Your task to perform on an android device: Open eBay Image 0: 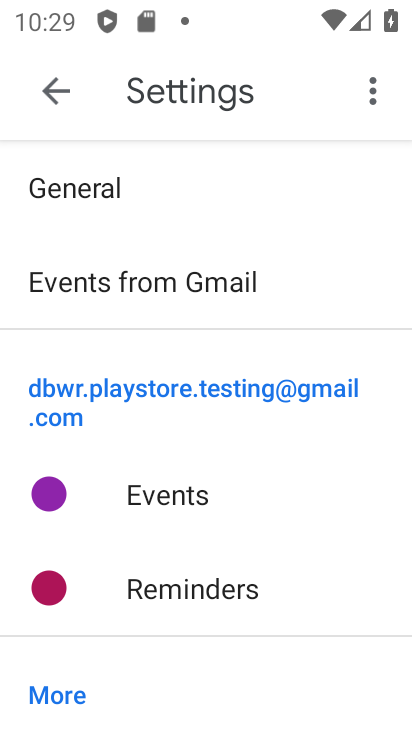
Step 0: press home button
Your task to perform on an android device: Open eBay Image 1: 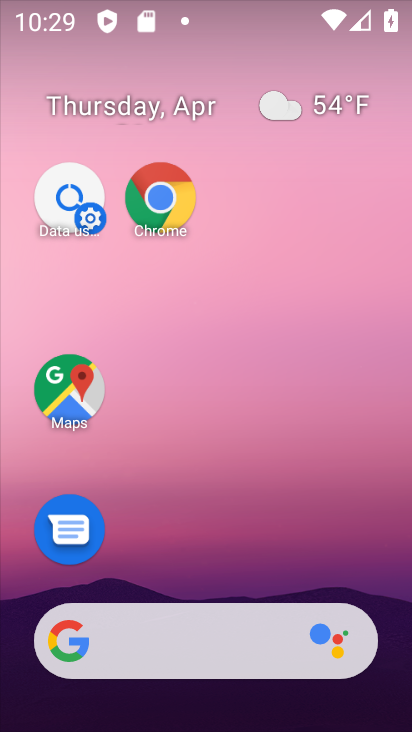
Step 1: click (168, 186)
Your task to perform on an android device: Open eBay Image 2: 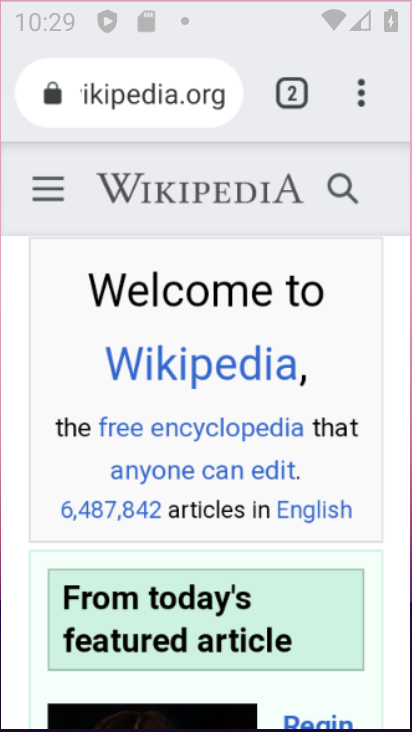
Step 2: click (168, 186)
Your task to perform on an android device: Open eBay Image 3: 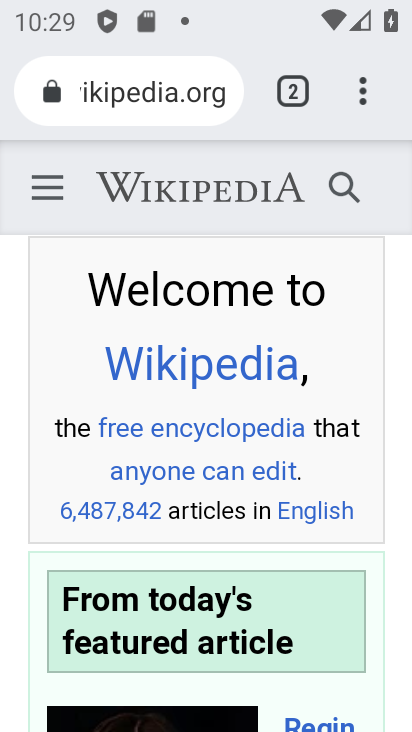
Step 3: click (294, 95)
Your task to perform on an android device: Open eBay Image 4: 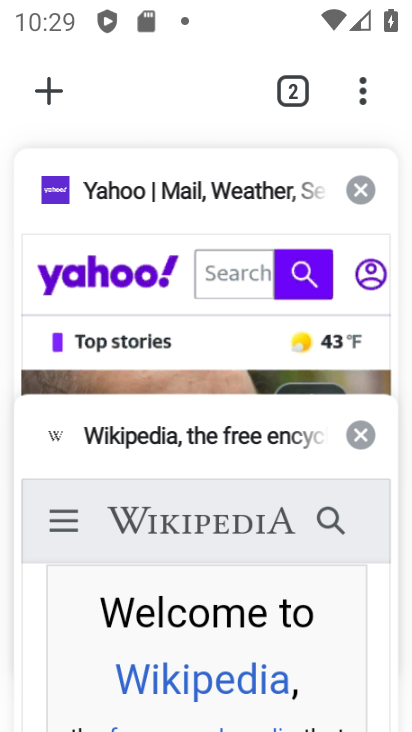
Step 4: click (38, 71)
Your task to perform on an android device: Open eBay Image 5: 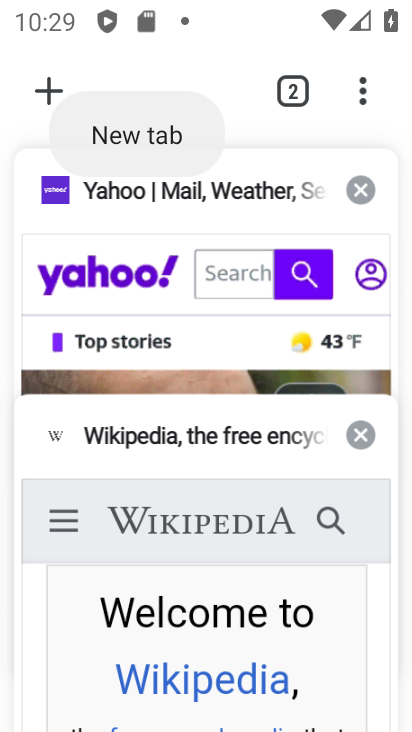
Step 5: click (55, 79)
Your task to perform on an android device: Open eBay Image 6: 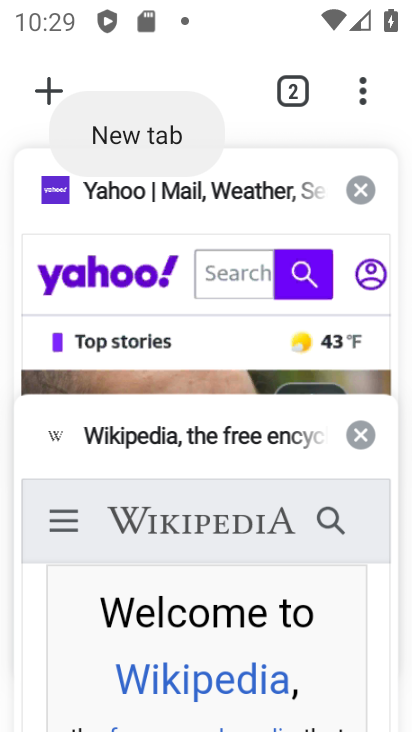
Step 6: click (47, 81)
Your task to perform on an android device: Open eBay Image 7: 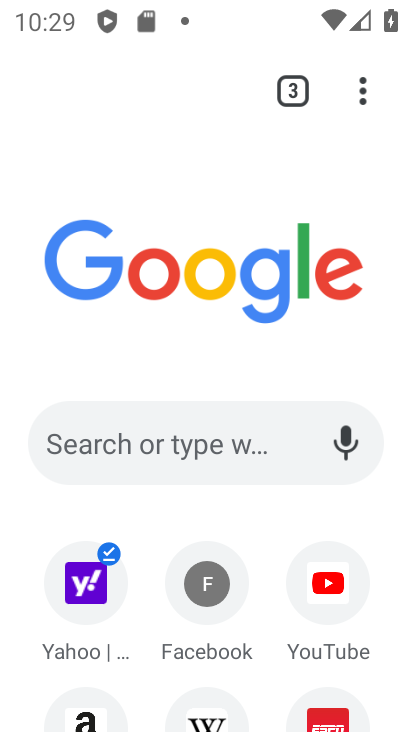
Step 7: click (202, 435)
Your task to perform on an android device: Open eBay Image 8: 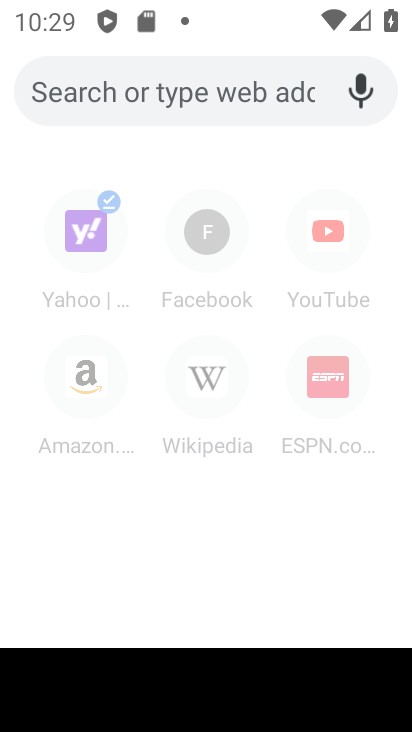
Step 8: type "ebay"
Your task to perform on an android device: Open eBay Image 9: 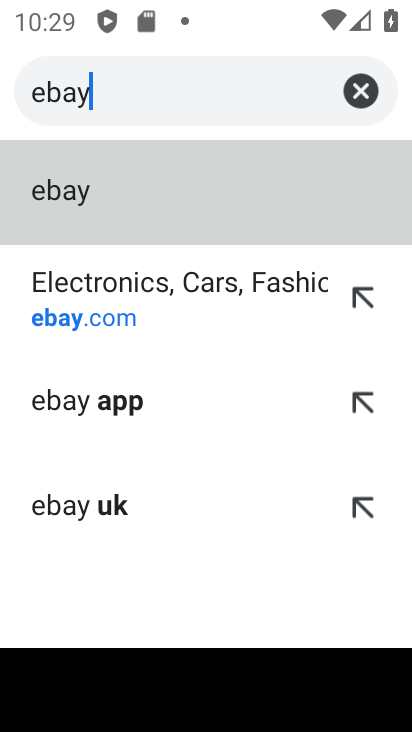
Step 9: type ""
Your task to perform on an android device: Open eBay Image 10: 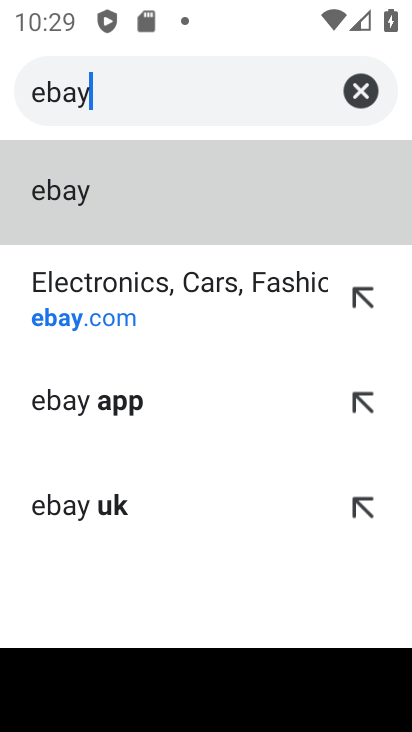
Step 10: click (194, 287)
Your task to perform on an android device: Open eBay Image 11: 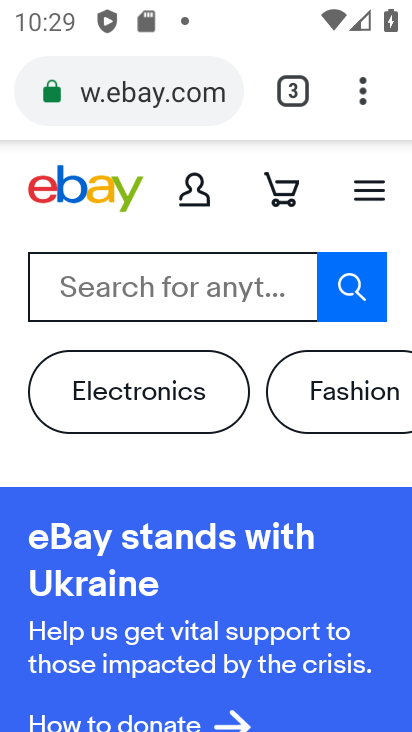
Step 11: task complete